Your task to perform on an android device: turn on data saver in the chrome app Image 0: 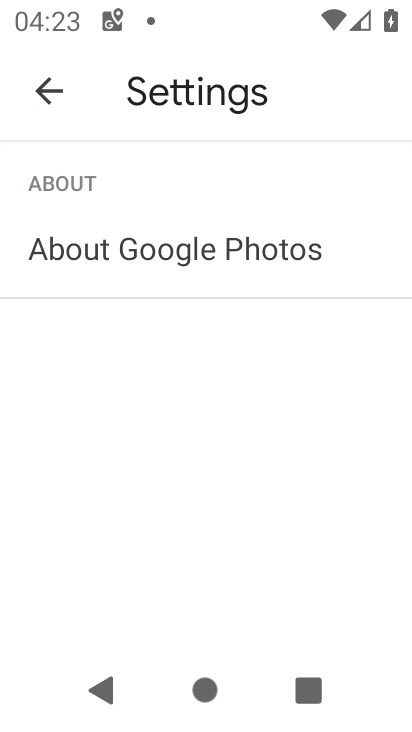
Step 0: drag from (205, 21) to (205, 224)
Your task to perform on an android device: turn on data saver in the chrome app Image 1: 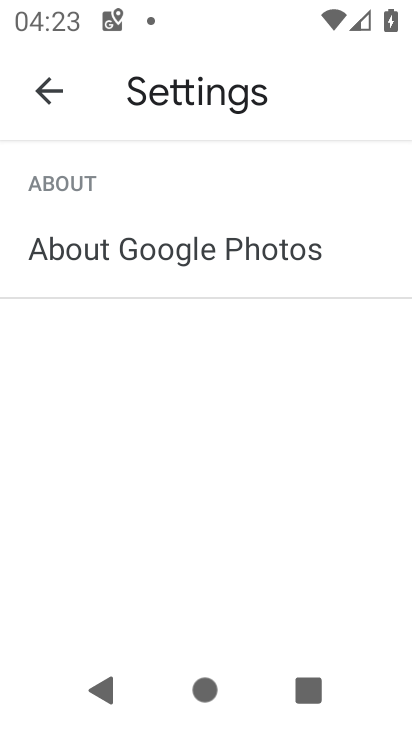
Step 1: press home button
Your task to perform on an android device: turn on data saver in the chrome app Image 2: 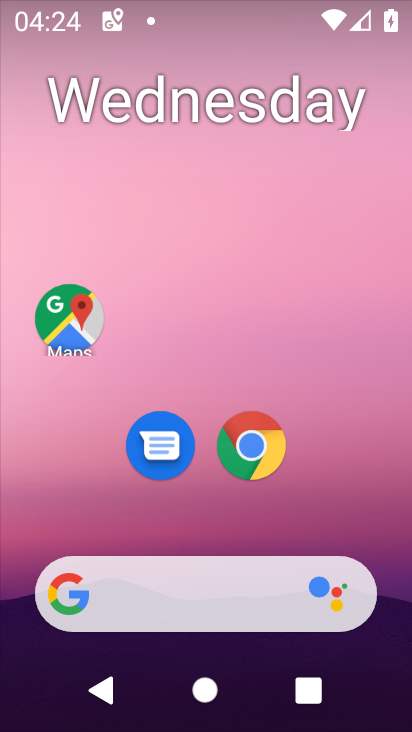
Step 2: click (237, 440)
Your task to perform on an android device: turn on data saver in the chrome app Image 3: 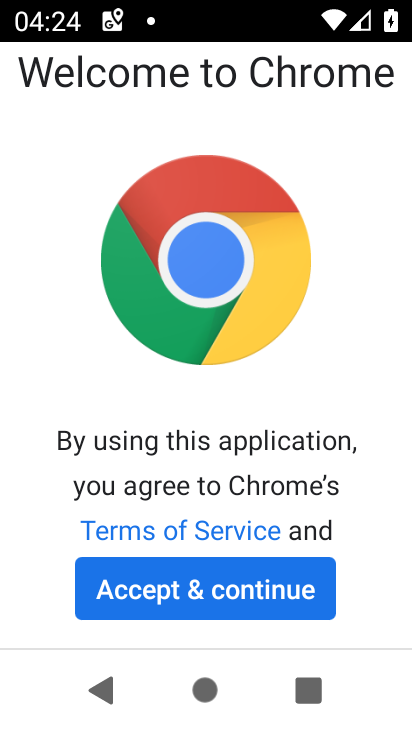
Step 3: click (219, 610)
Your task to perform on an android device: turn on data saver in the chrome app Image 4: 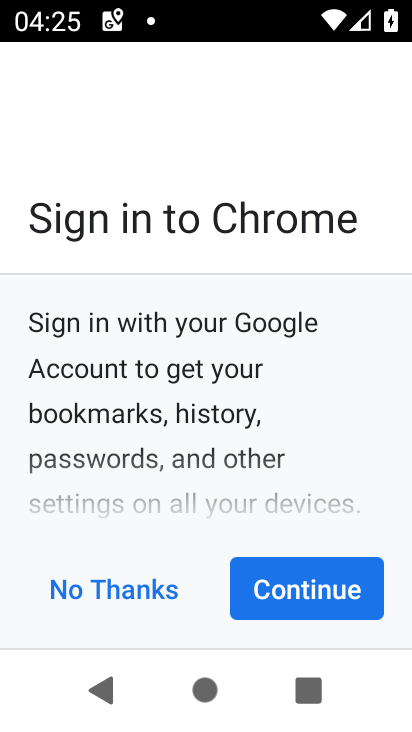
Step 4: click (290, 598)
Your task to perform on an android device: turn on data saver in the chrome app Image 5: 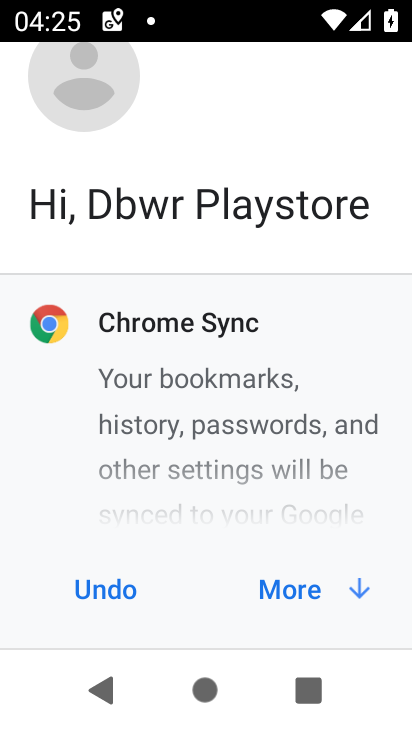
Step 5: click (290, 598)
Your task to perform on an android device: turn on data saver in the chrome app Image 6: 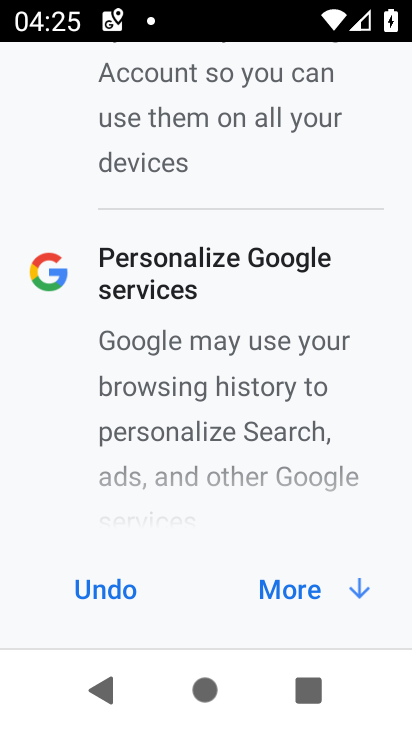
Step 6: click (290, 598)
Your task to perform on an android device: turn on data saver in the chrome app Image 7: 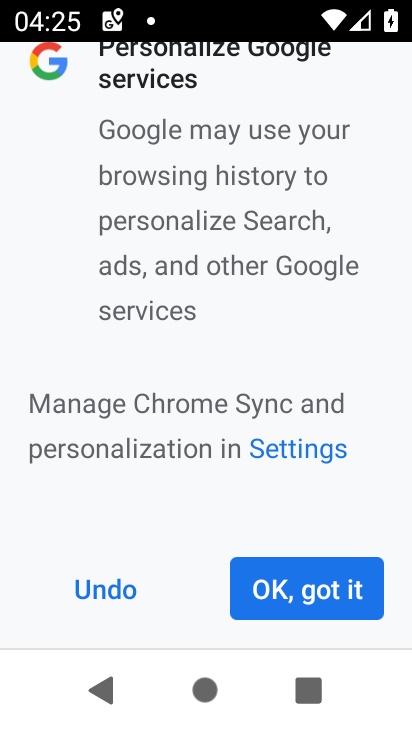
Step 7: click (290, 598)
Your task to perform on an android device: turn on data saver in the chrome app Image 8: 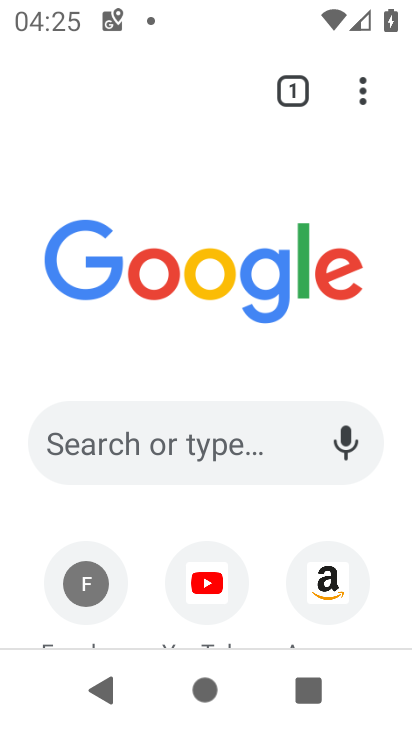
Step 8: click (364, 81)
Your task to perform on an android device: turn on data saver in the chrome app Image 9: 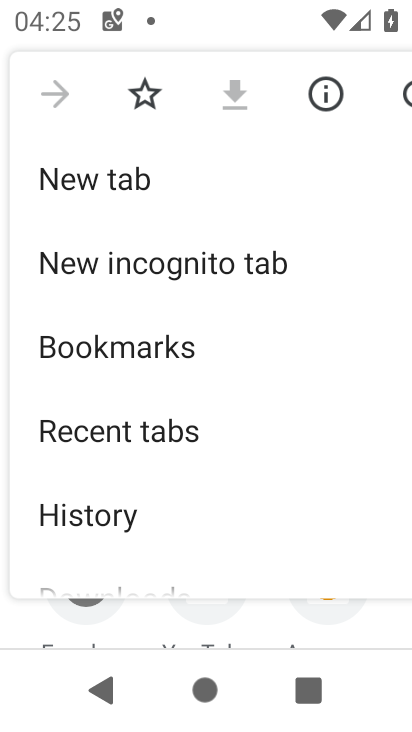
Step 9: drag from (89, 566) to (136, 253)
Your task to perform on an android device: turn on data saver in the chrome app Image 10: 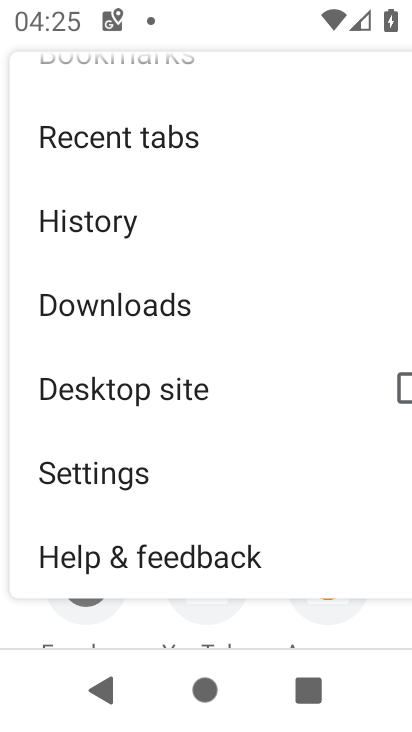
Step 10: click (98, 484)
Your task to perform on an android device: turn on data saver in the chrome app Image 11: 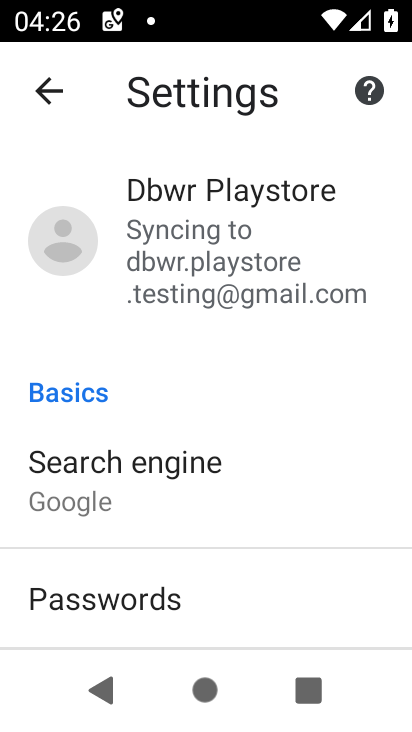
Step 11: drag from (77, 398) to (123, 79)
Your task to perform on an android device: turn on data saver in the chrome app Image 12: 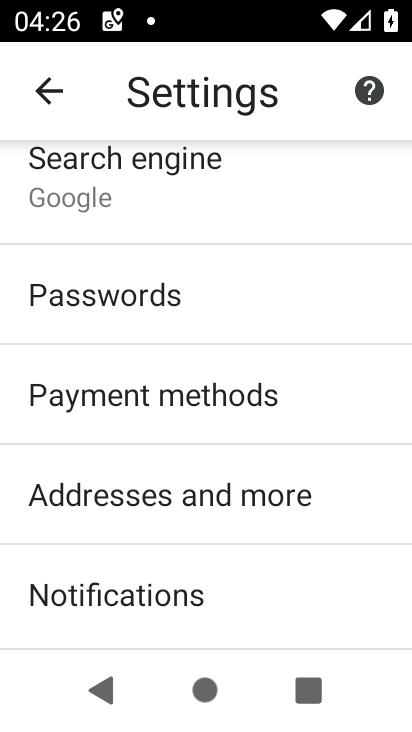
Step 12: drag from (168, 609) to (207, 61)
Your task to perform on an android device: turn on data saver in the chrome app Image 13: 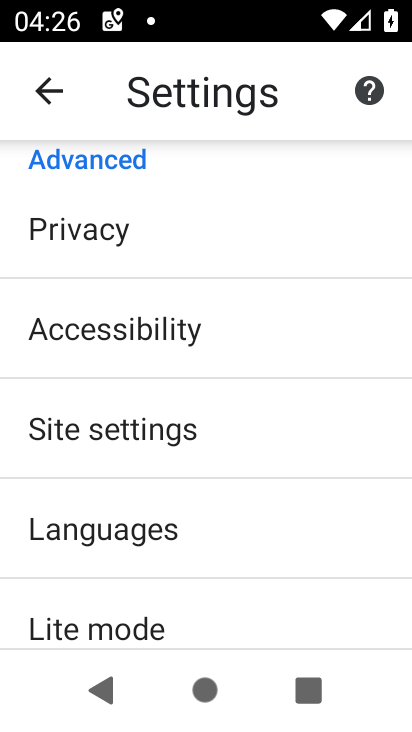
Step 13: click (125, 633)
Your task to perform on an android device: turn on data saver in the chrome app Image 14: 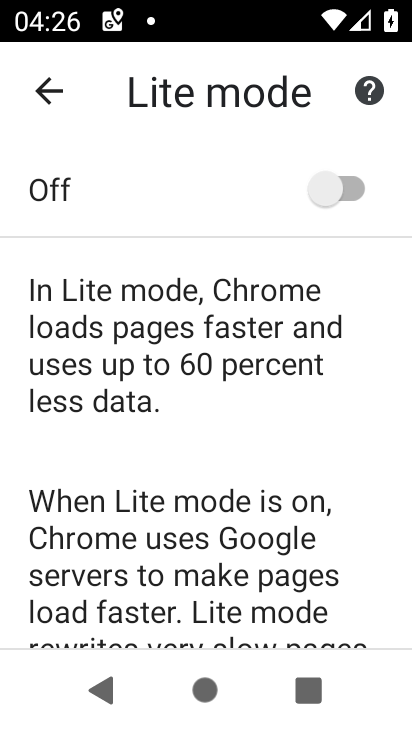
Step 14: click (340, 180)
Your task to perform on an android device: turn on data saver in the chrome app Image 15: 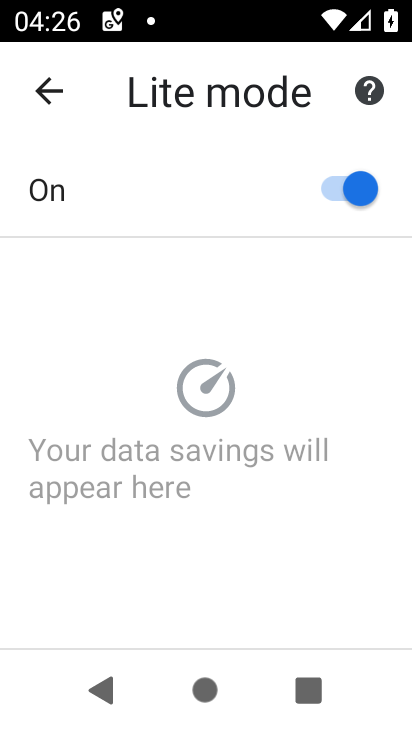
Step 15: task complete